Your task to perform on an android device: Open settings Image 0: 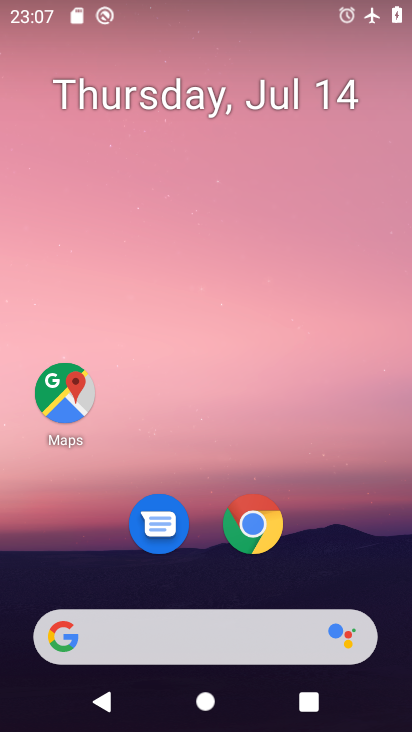
Step 0: drag from (315, 498) to (284, 9)
Your task to perform on an android device: Open settings Image 1: 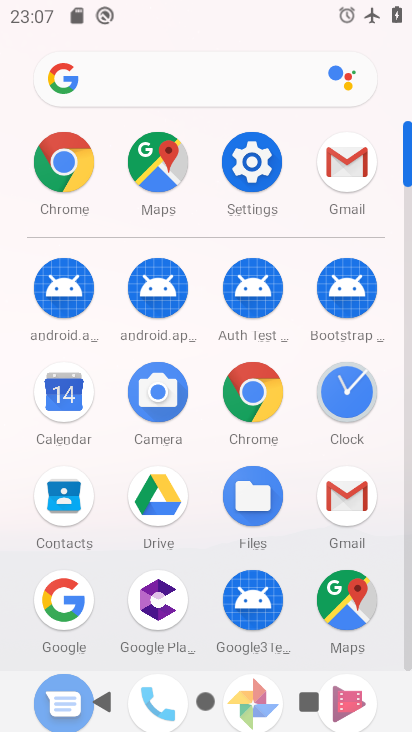
Step 1: click (254, 158)
Your task to perform on an android device: Open settings Image 2: 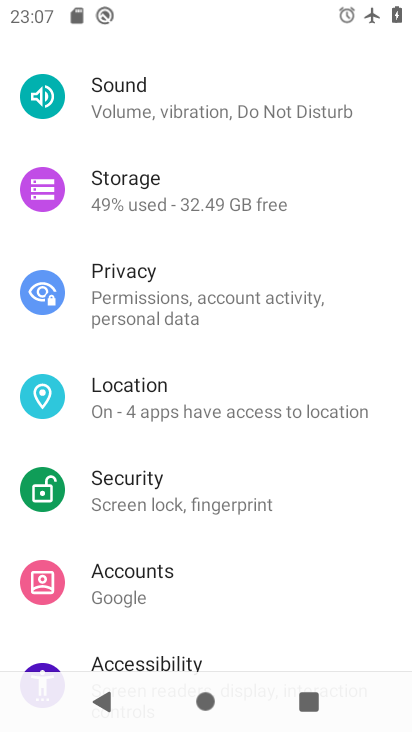
Step 2: task complete